Your task to perform on an android device: Open eBay Image 0: 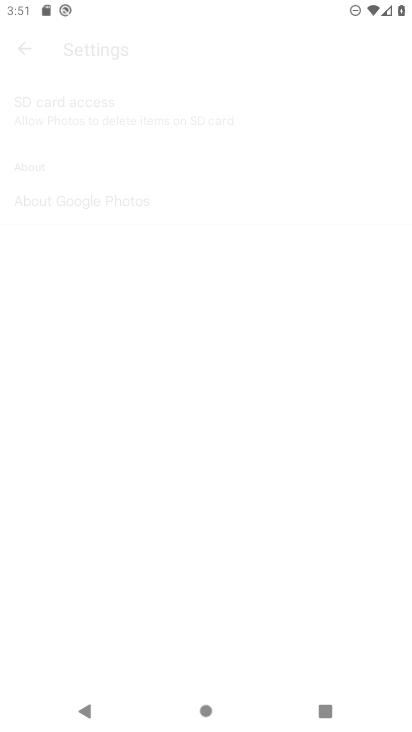
Step 0: drag from (228, 598) to (267, 170)
Your task to perform on an android device: Open eBay Image 1: 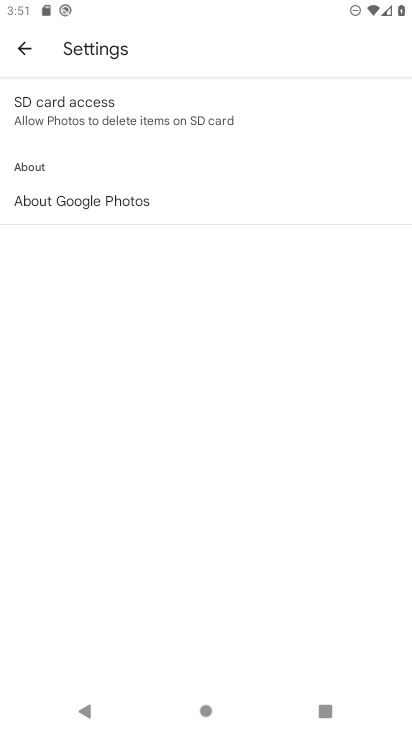
Step 1: press home button
Your task to perform on an android device: Open eBay Image 2: 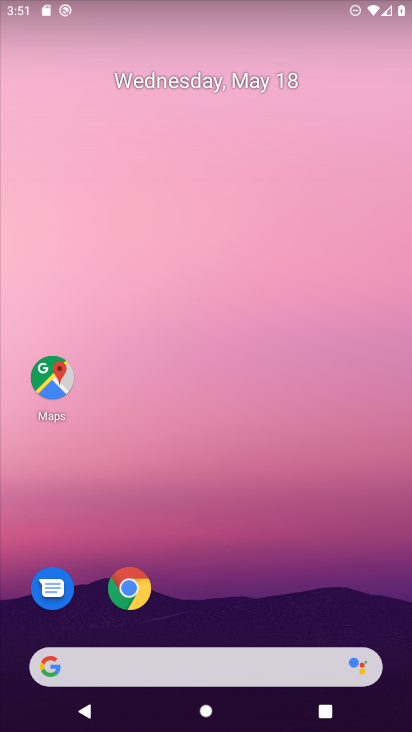
Step 2: click (142, 578)
Your task to perform on an android device: Open eBay Image 3: 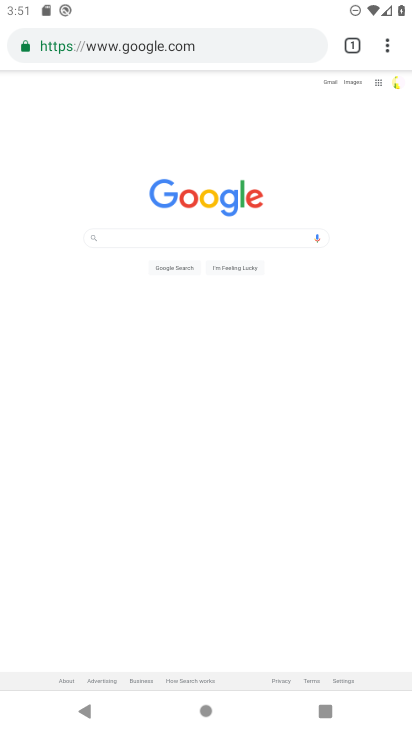
Step 3: click (175, 53)
Your task to perform on an android device: Open eBay Image 4: 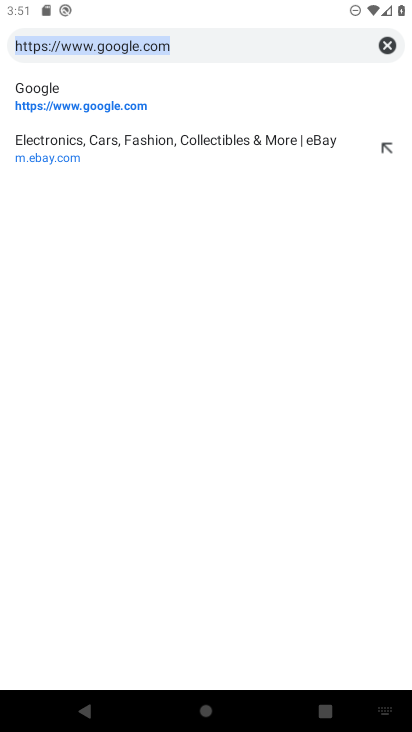
Step 4: type "ebay.com"
Your task to perform on an android device: Open eBay Image 5: 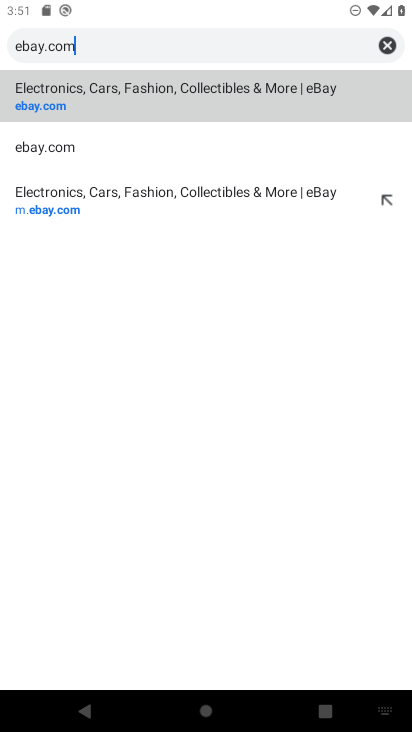
Step 5: click (167, 111)
Your task to perform on an android device: Open eBay Image 6: 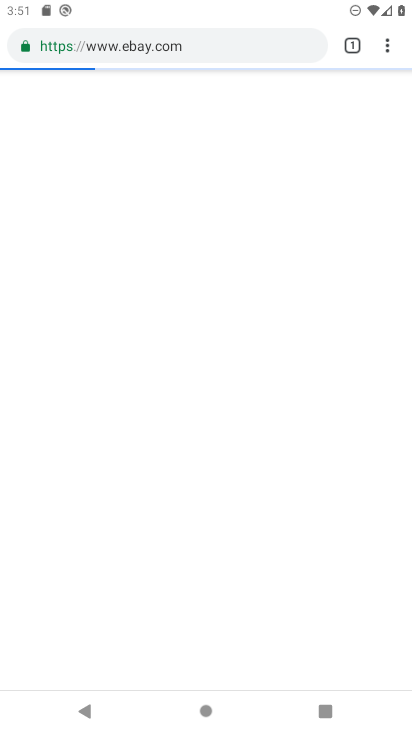
Step 6: task complete